Your task to perform on an android device: toggle show notifications on the lock screen Image 0: 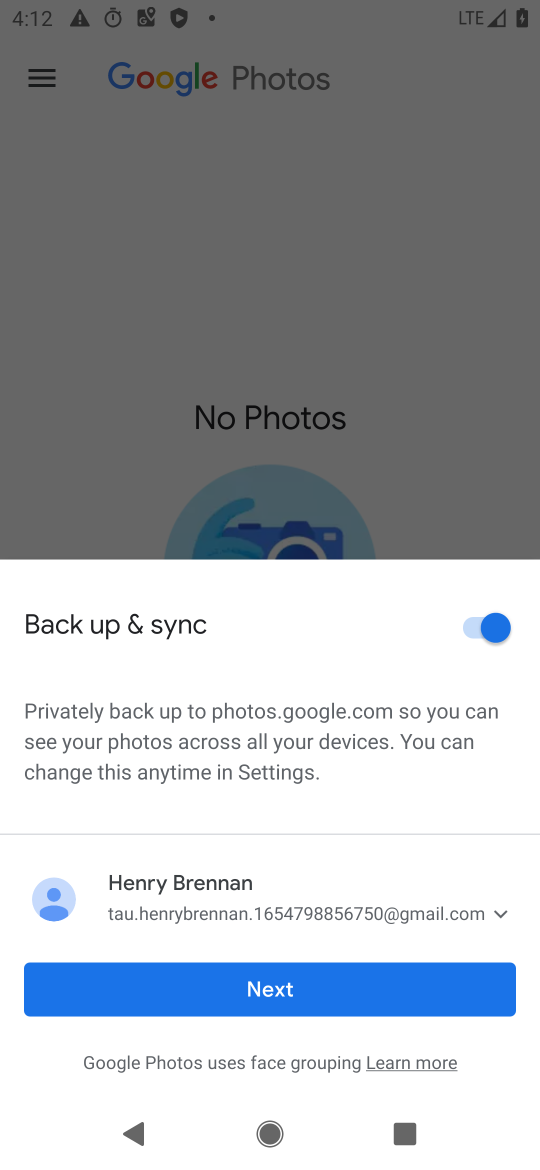
Step 0: press home button
Your task to perform on an android device: toggle show notifications on the lock screen Image 1: 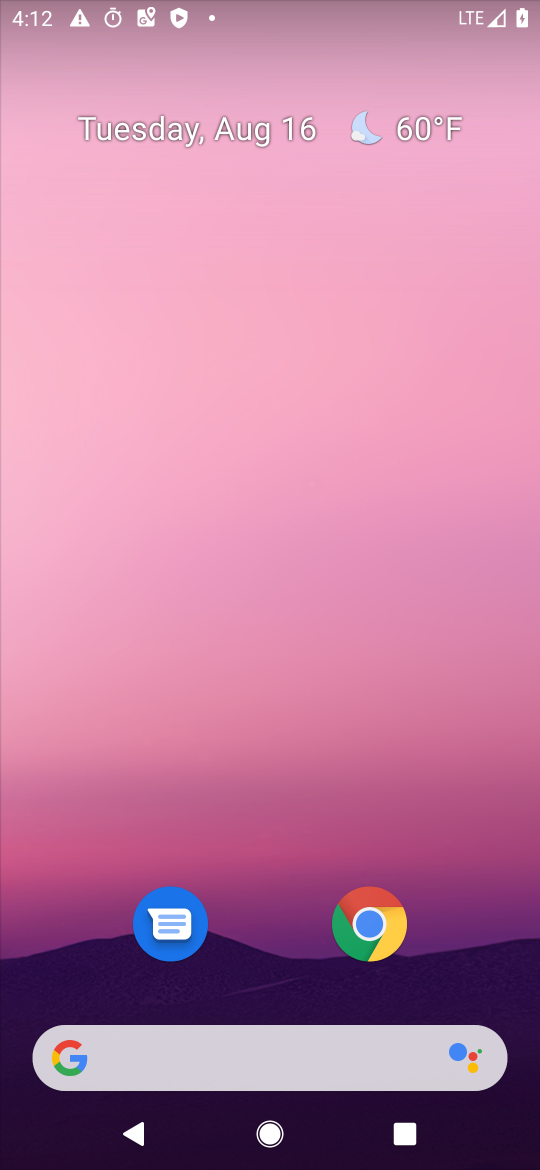
Step 1: drag from (291, 955) to (334, 139)
Your task to perform on an android device: toggle show notifications on the lock screen Image 2: 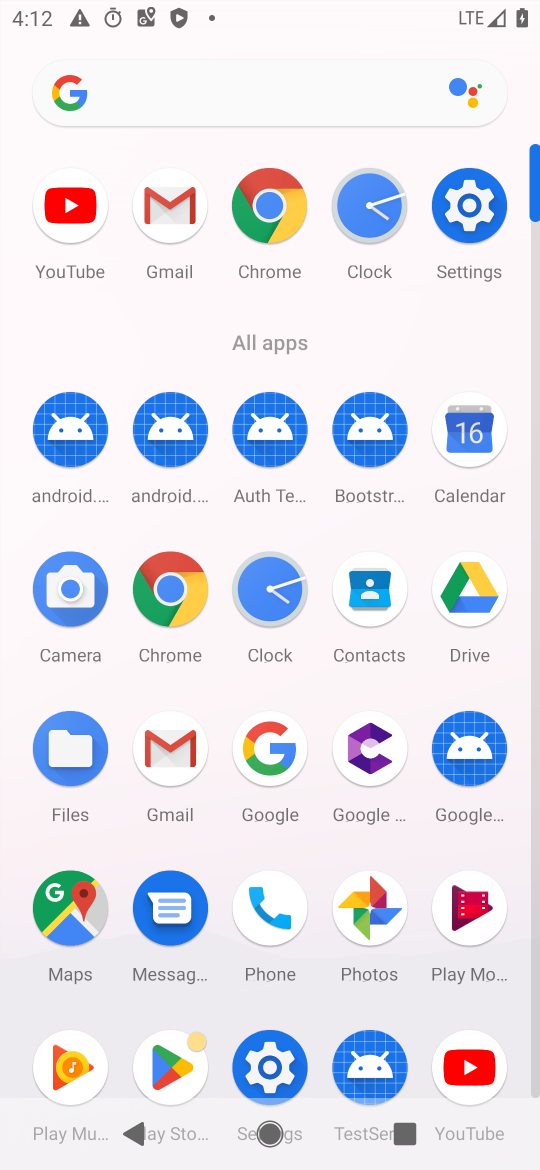
Step 2: click (458, 249)
Your task to perform on an android device: toggle show notifications on the lock screen Image 3: 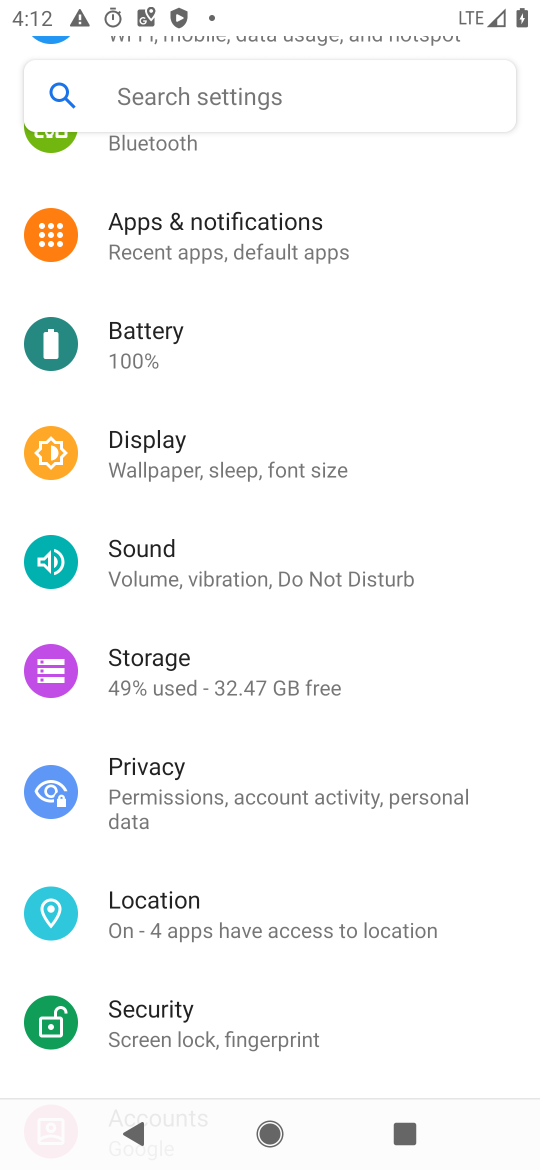
Step 3: click (311, 246)
Your task to perform on an android device: toggle show notifications on the lock screen Image 4: 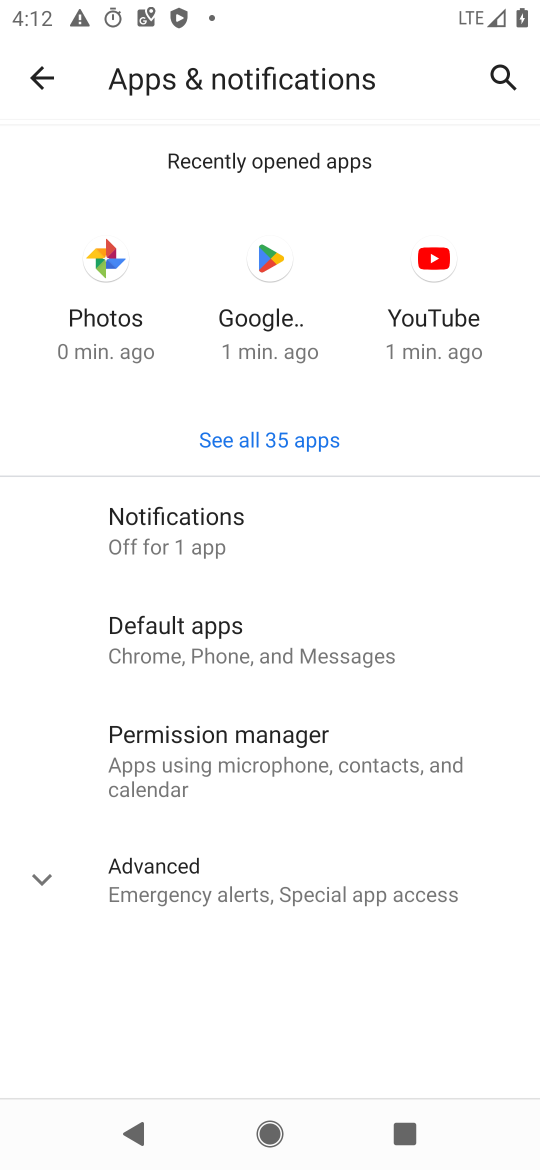
Step 4: click (195, 546)
Your task to perform on an android device: toggle show notifications on the lock screen Image 5: 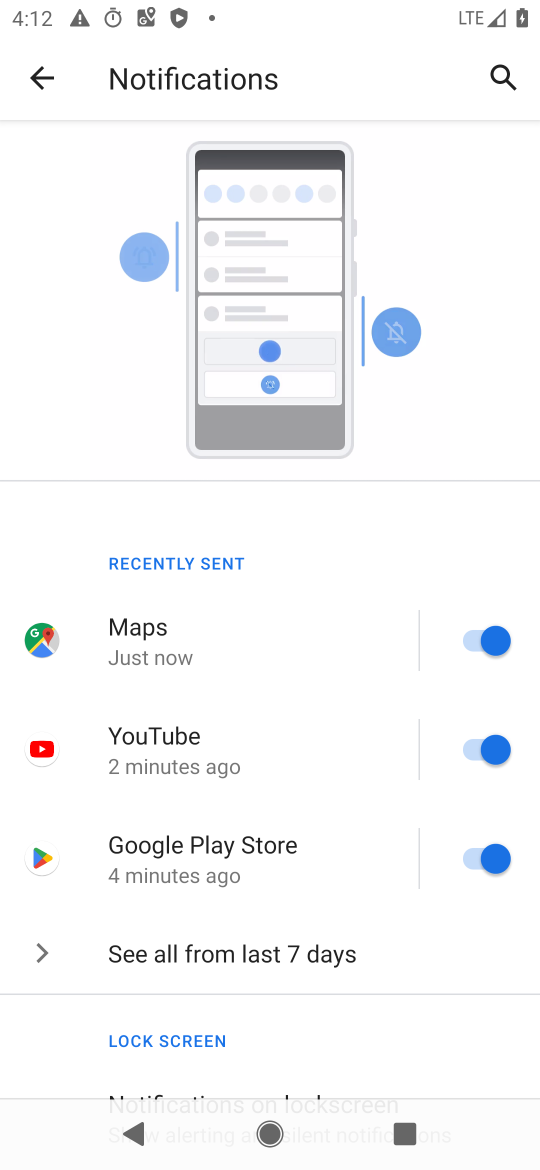
Step 5: drag from (301, 1008) to (381, 305)
Your task to perform on an android device: toggle show notifications on the lock screen Image 6: 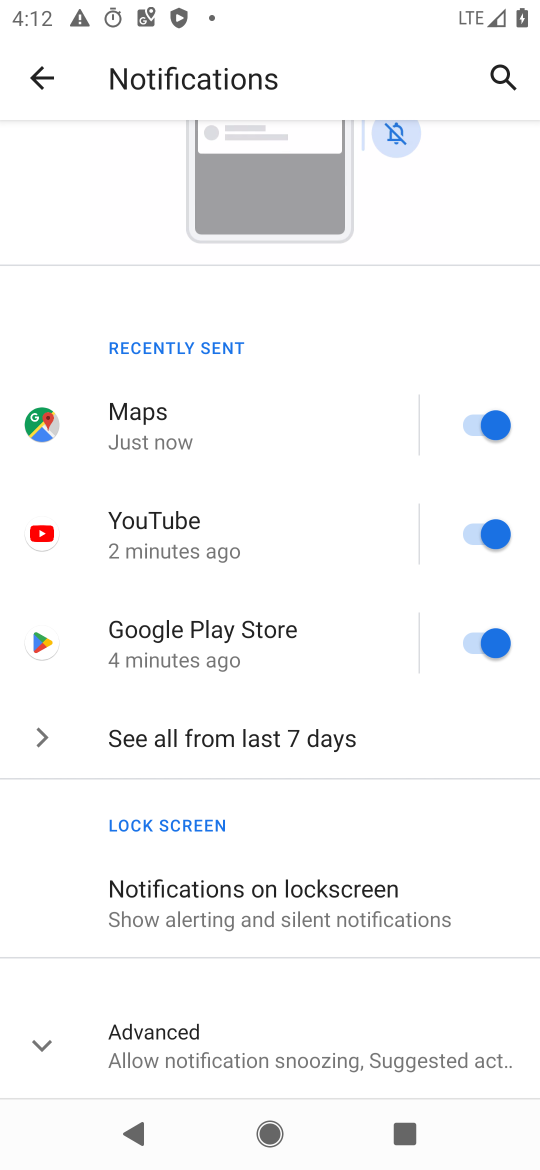
Step 6: click (268, 908)
Your task to perform on an android device: toggle show notifications on the lock screen Image 7: 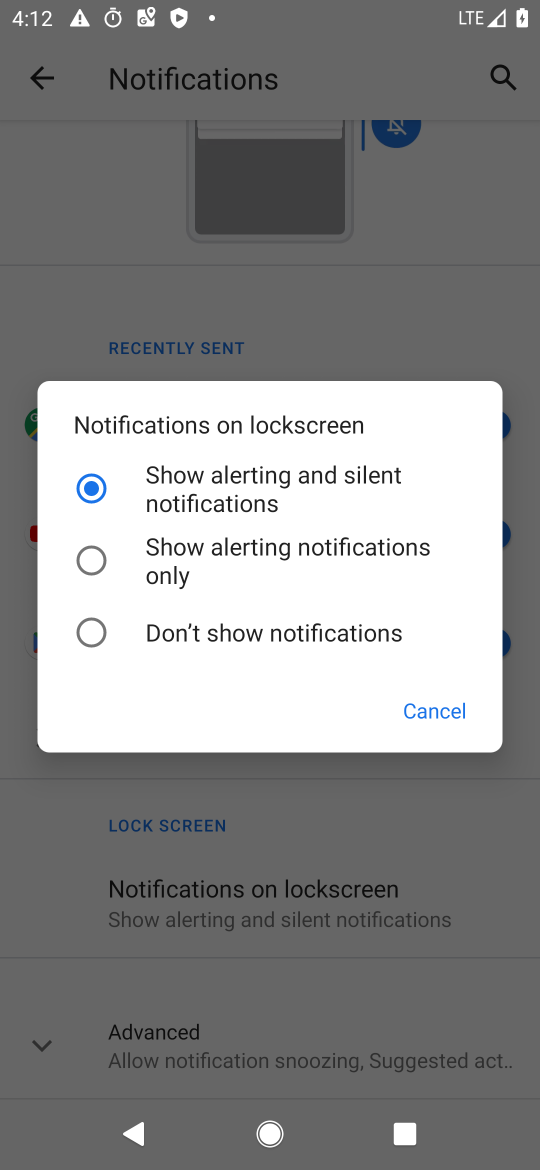
Step 7: task complete